Your task to perform on an android device: Open eBay Image 0: 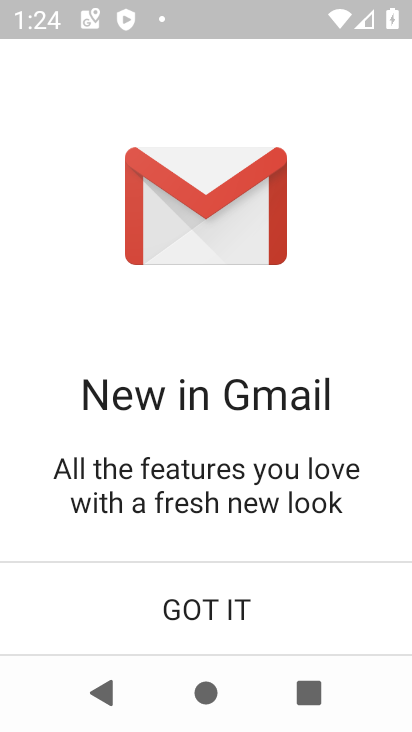
Step 0: click (164, 605)
Your task to perform on an android device: Open eBay Image 1: 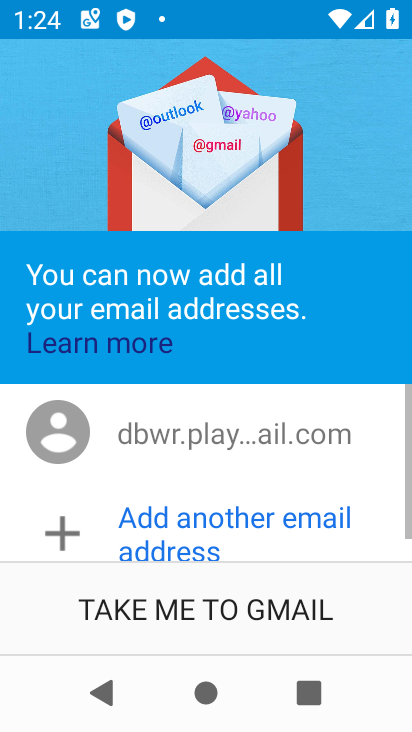
Step 1: click (225, 625)
Your task to perform on an android device: Open eBay Image 2: 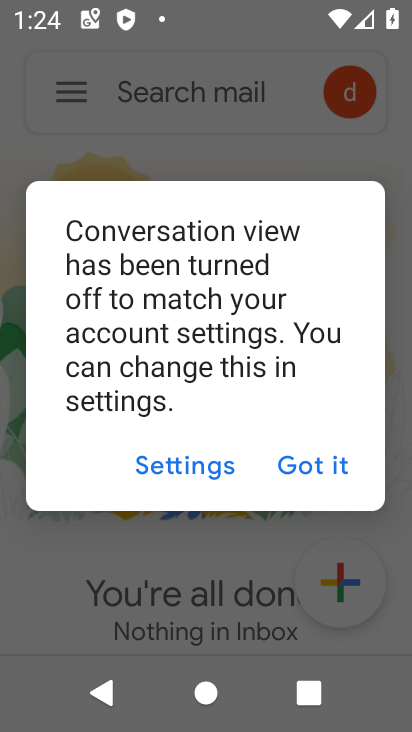
Step 2: click (315, 473)
Your task to perform on an android device: Open eBay Image 3: 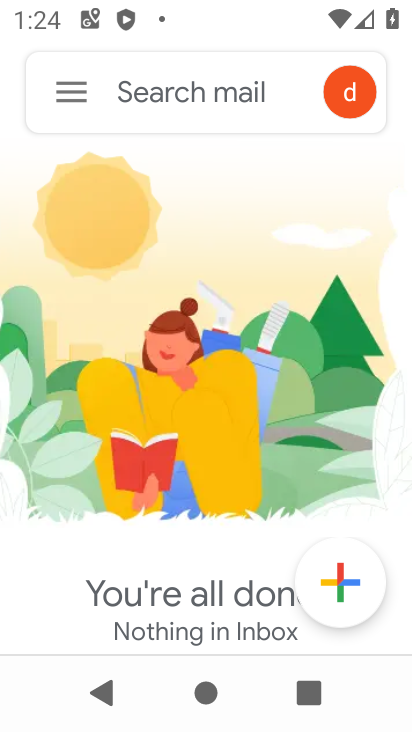
Step 3: click (70, 86)
Your task to perform on an android device: Open eBay Image 4: 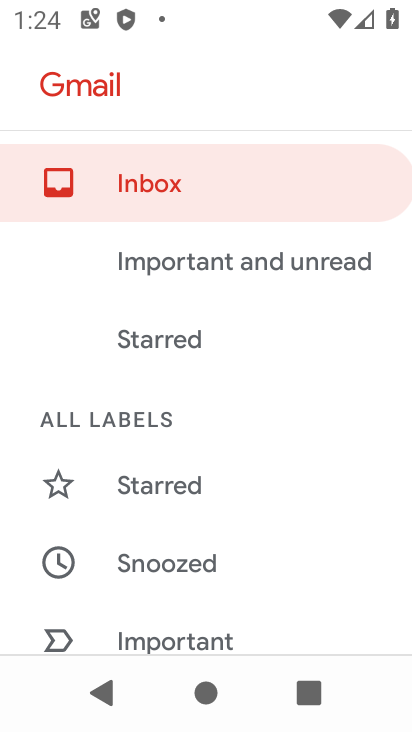
Step 4: press home button
Your task to perform on an android device: Open eBay Image 5: 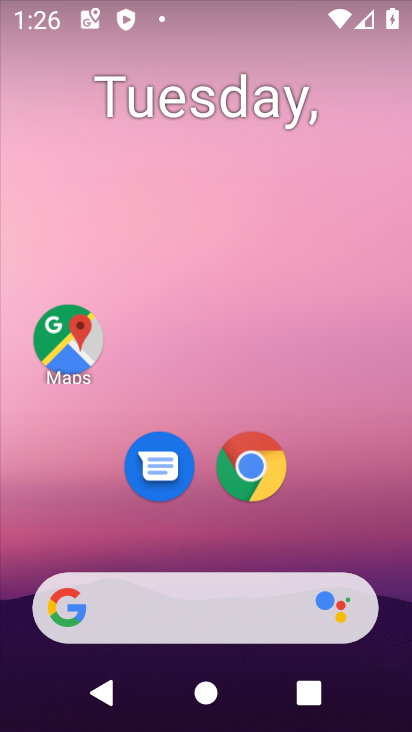
Step 5: click (298, 467)
Your task to perform on an android device: Open eBay Image 6: 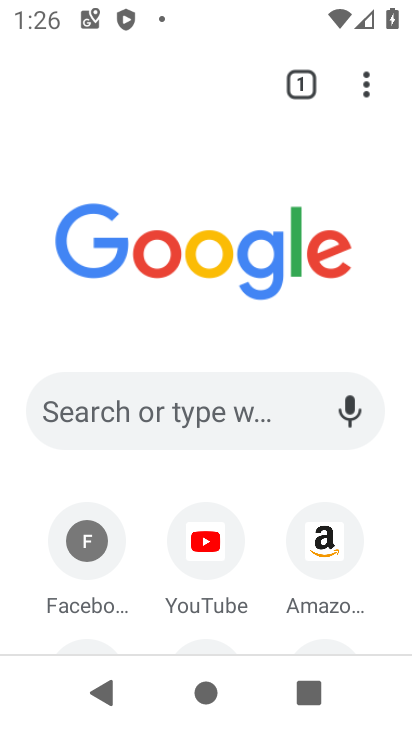
Step 6: click (245, 412)
Your task to perform on an android device: Open eBay Image 7: 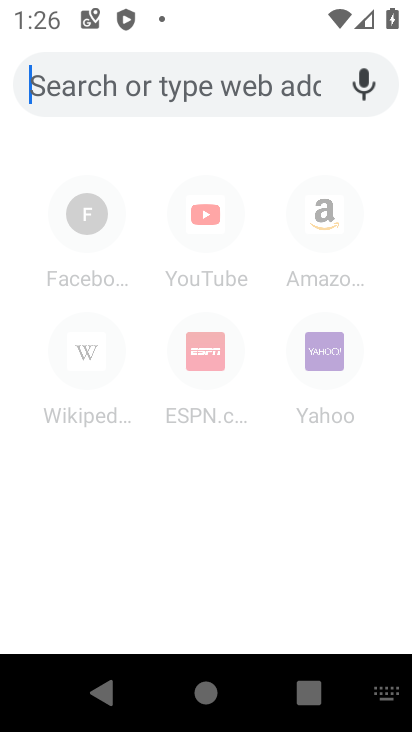
Step 7: type "eBay"
Your task to perform on an android device: Open eBay Image 8: 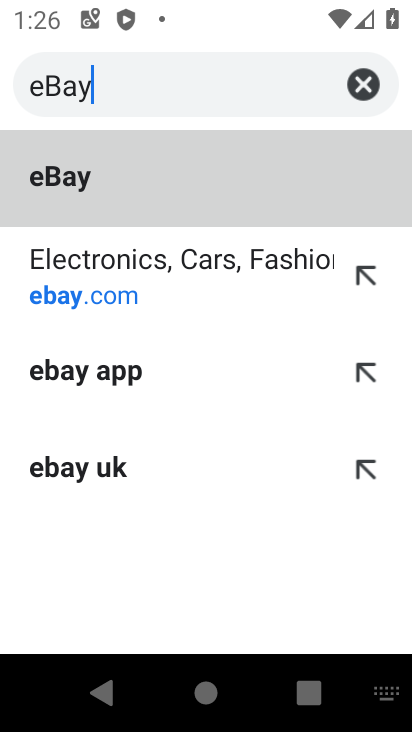
Step 8: click (116, 173)
Your task to perform on an android device: Open eBay Image 9: 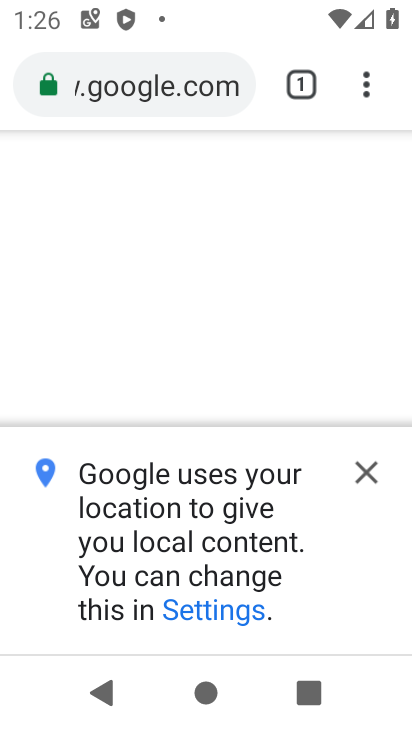
Step 9: task complete